Your task to perform on an android device: Is it going to rain today? Image 0: 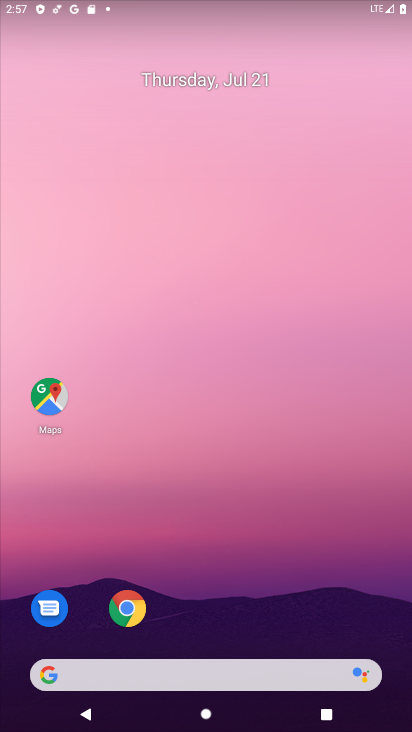
Step 0: drag from (219, 650) to (183, 37)
Your task to perform on an android device: Is it going to rain today? Image 1: 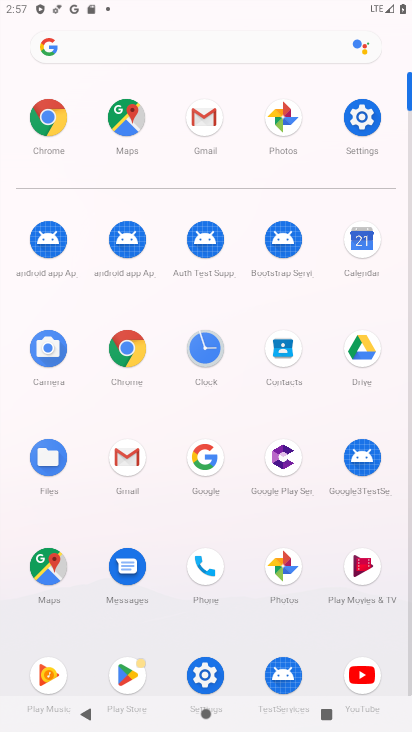
Step 1: click (205, 464)
Your task to perform on an android device: Is it going to rain today? Image 2: 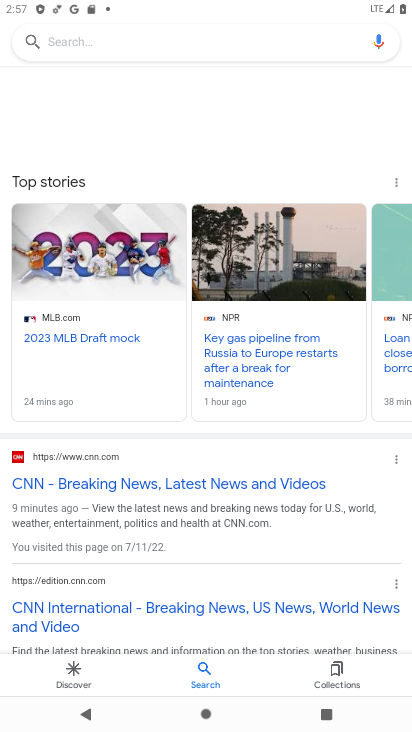
Step 2: click (156, 96)
Your task to perform on an android device: Is it going to rain today? Image 3: 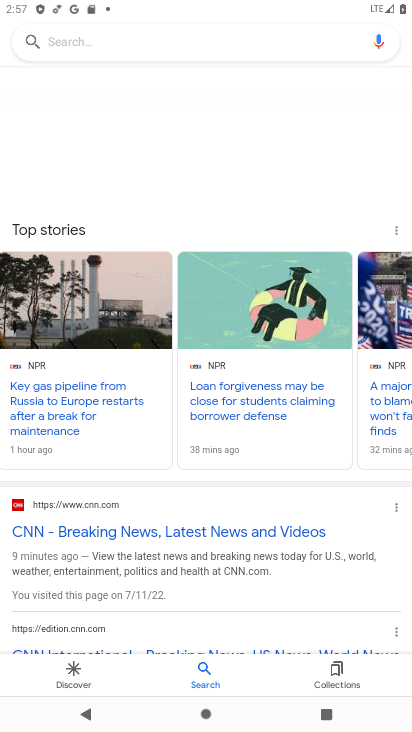
Step 3: click (101, 45)
Your task to perform on an android device: Is it going to rain today? Image 4: 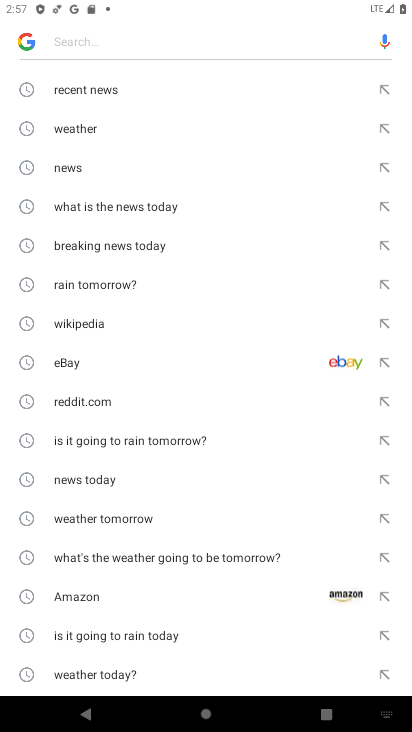
Step 4: click (76, 126)
Your task to perform on an android device: Is it going to rain today? Image 5: 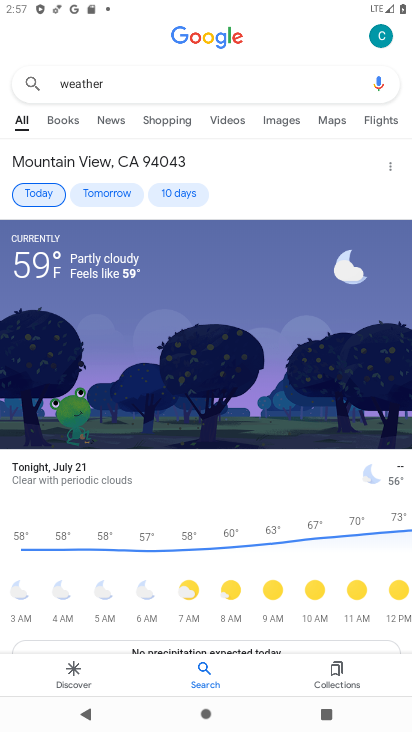
Step 5: click (46, 187)
Your task to perform on an android device: Is it going to rain today? Image 6: 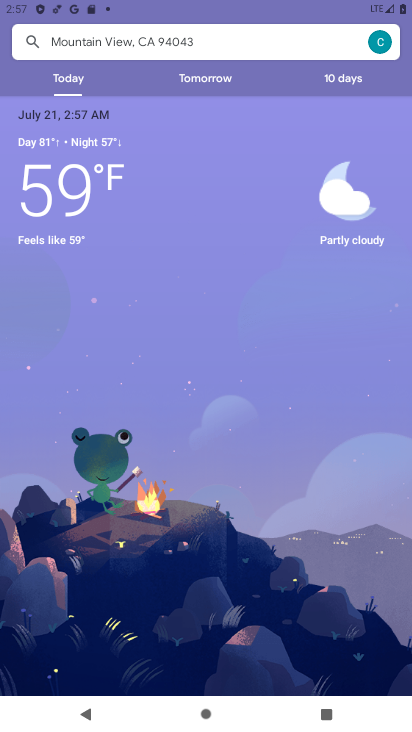
Step 6: task complete